Your task to perform on an android device: Go to wifi settings Image 0: 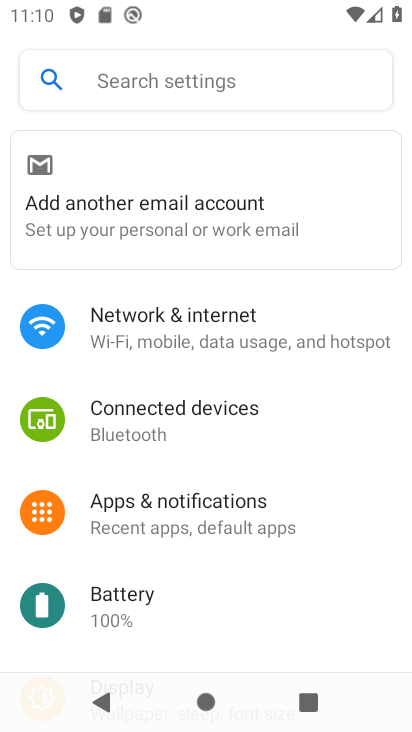
Step 0: click (176, 321)
Your task to perform on an android device: Go to wifi settings Image 1: 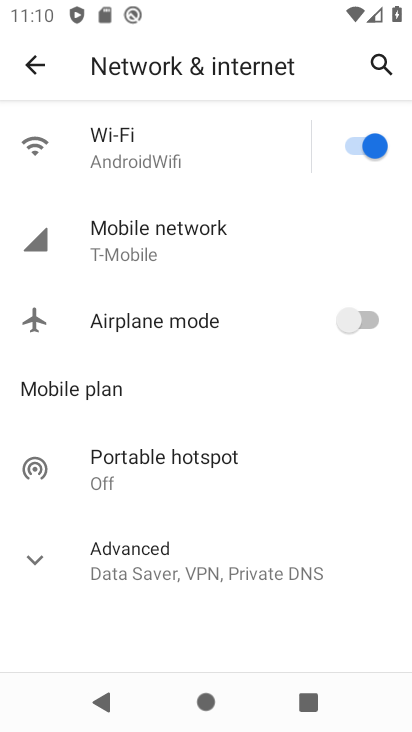
Step 1: click (108, 167)
Your task to perform on an android device: Go to wifi settings Image 2: 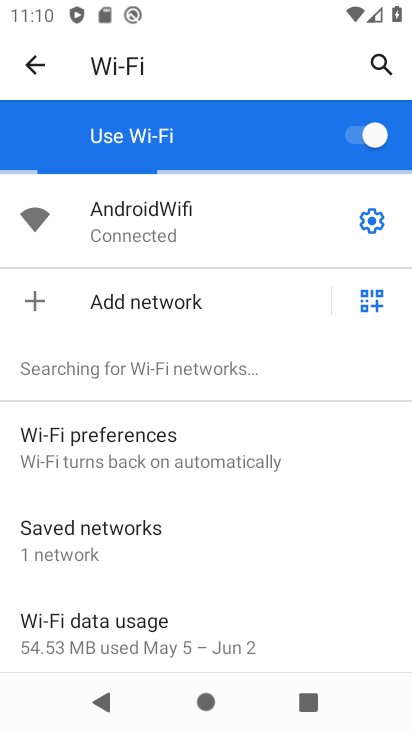
Step 2: task complete